Your task to perform on an android device: turn off notifications settings in the gmail app Image 0: 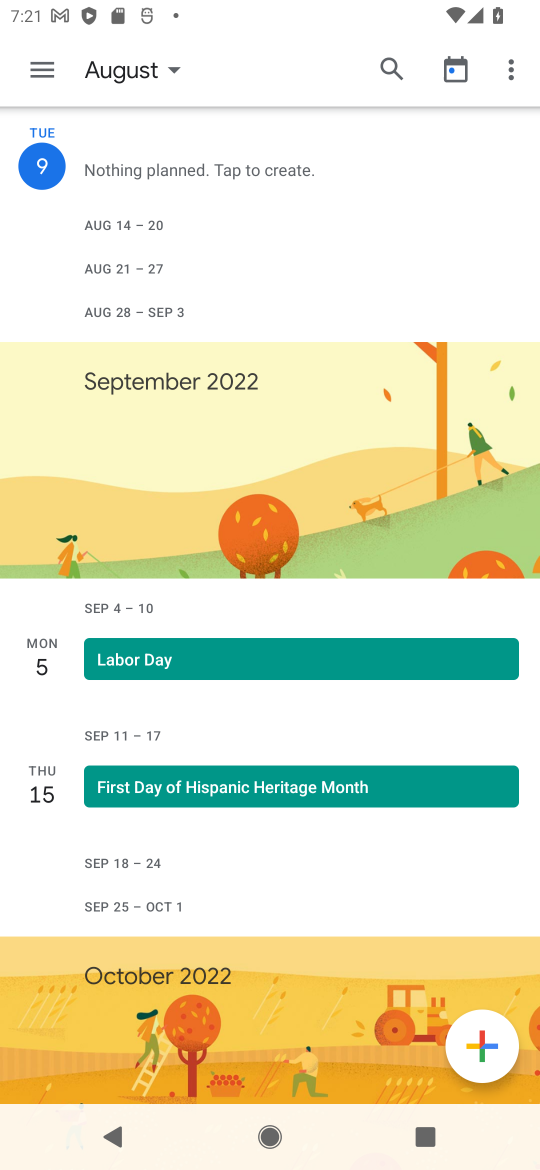
Step 0: press home button
Your task to perform on an android device: turn off notifications settings in the gmail app Image 1: 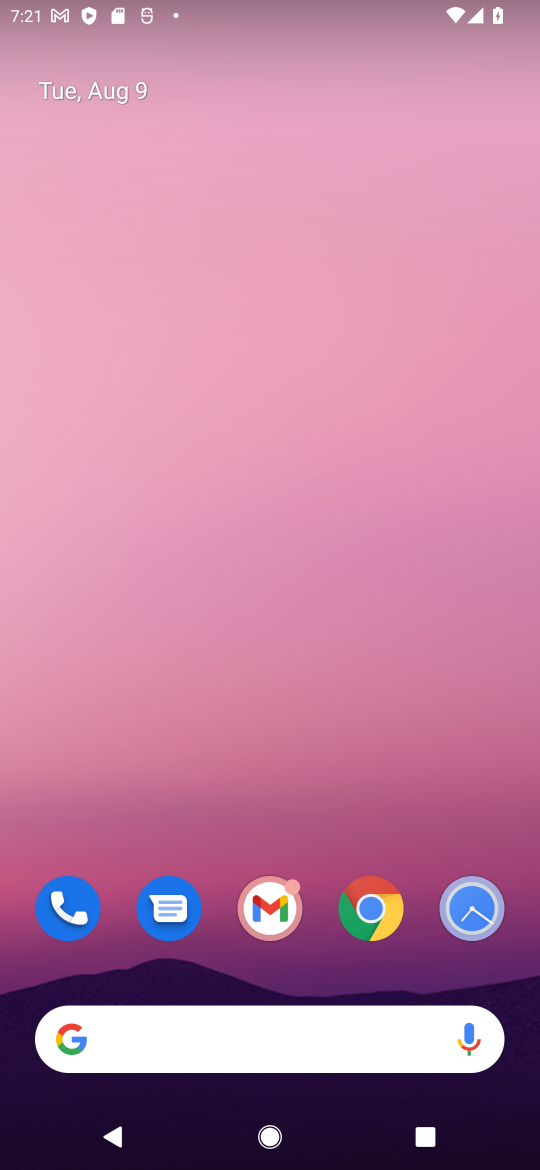
Step 1: drag from (303, 929) to (303, 154)
Your task to perform on an android device: turn off notifications settings in the gmail app Image 2: 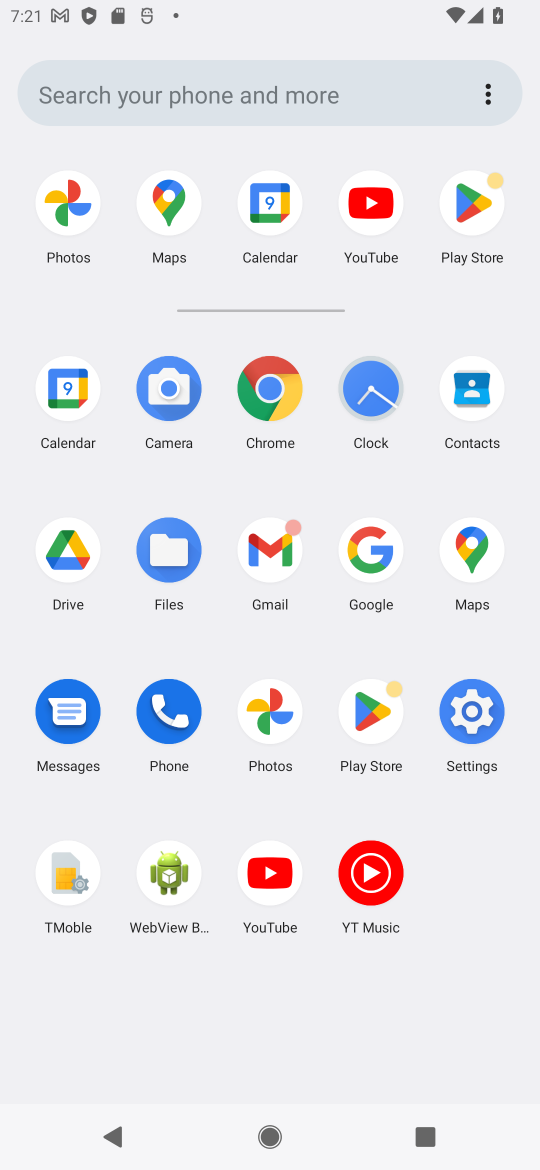
Step 2: click (269, 546)
Your task to perform on an android device: turn off notifications settings in the gmail app Image 3: 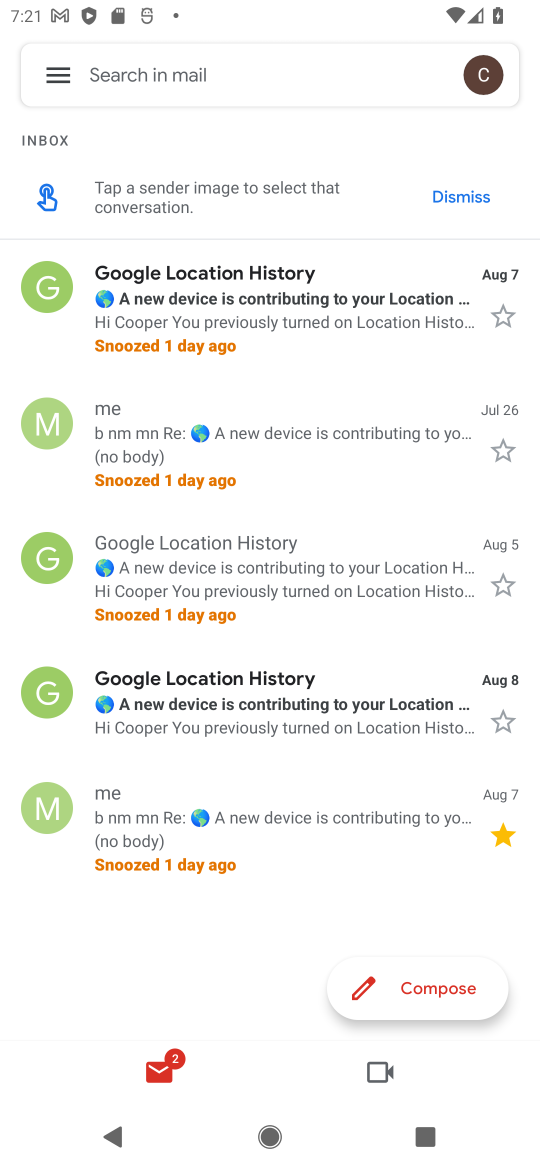
Step 3: click (55, 74)
Your task to perform on an android device: turn off notifications settings in the gmail app Image 4: 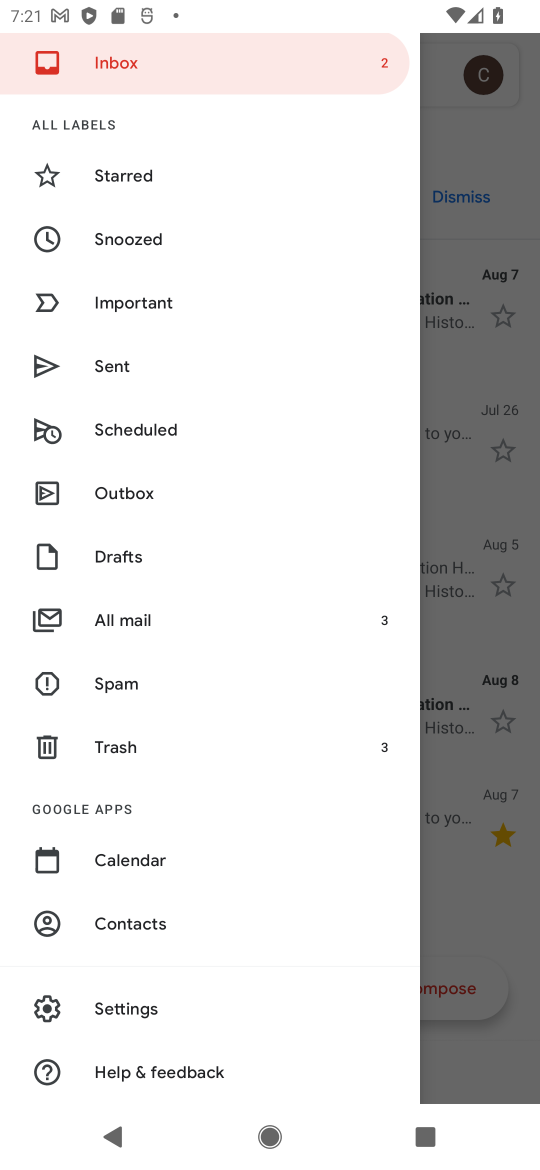
Step 4: click (109, 996)
Your task to perform on an android device: turn off notifications settings in the gmail app Image 5: 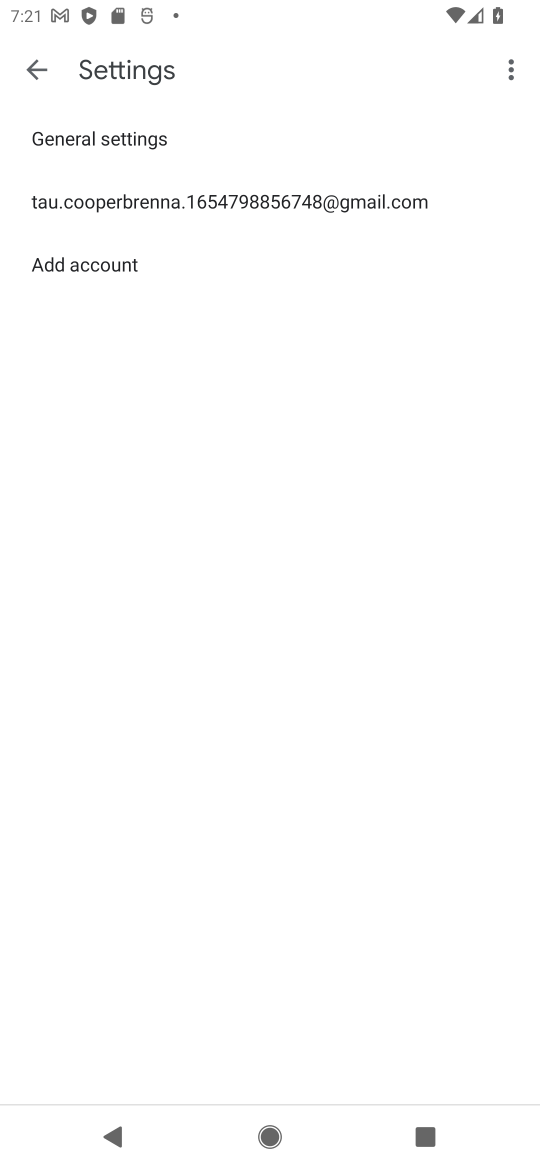
Step 5: click (306, 196)
Your task to perform on an android device: turn off notifications settings in the gmail app Image 6: 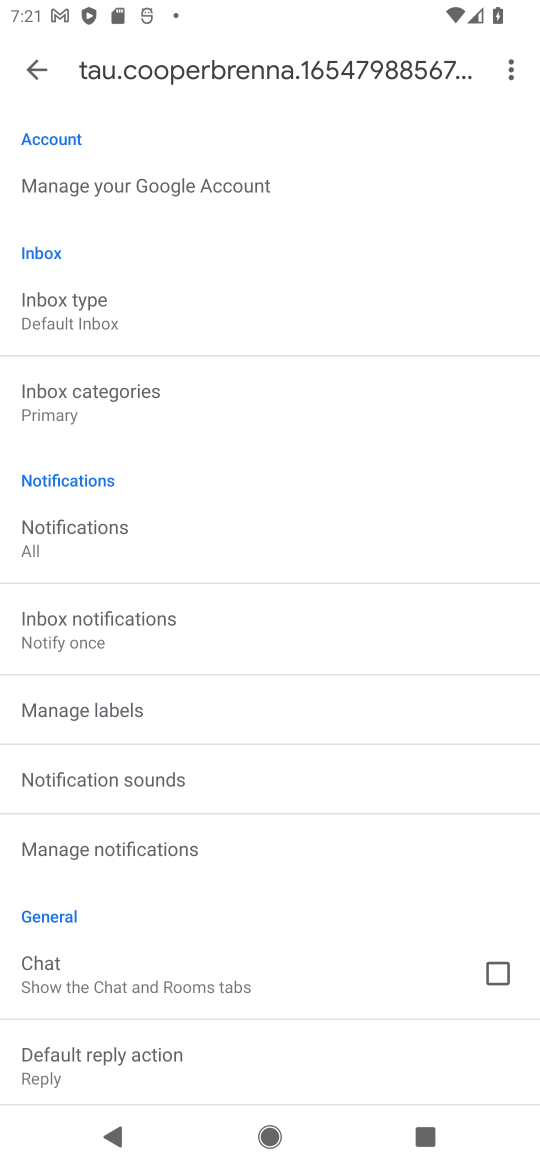
Step 6: click (58, 523)
Your task to perform on an android device: turn off notifications settings in the gmail app Image 7: 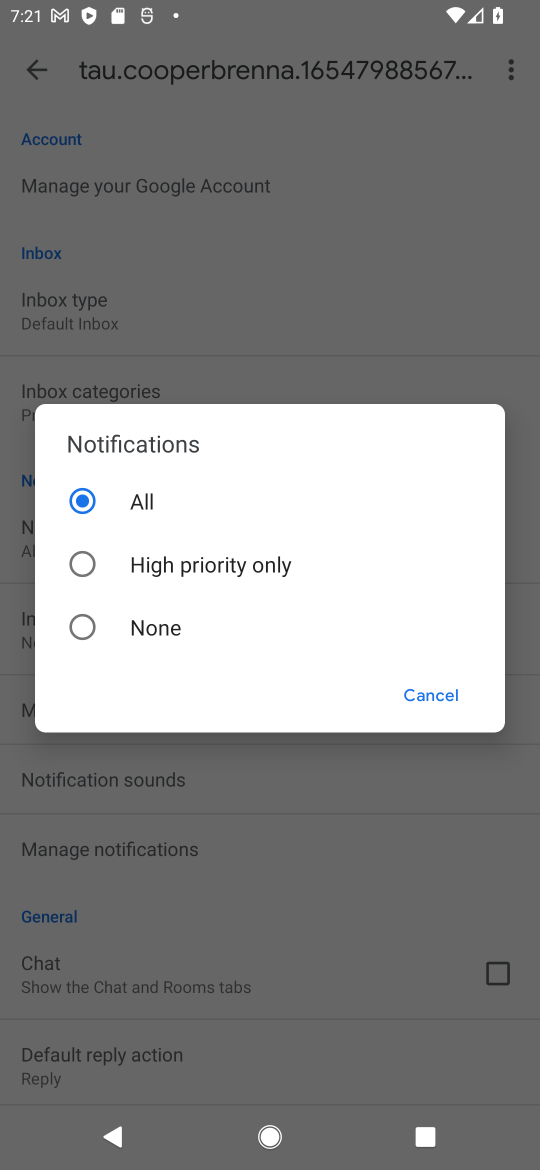
Step 7: click (81, 632)
Your task to perform on an android device: turn off notifications settings in the gmail app Image 8: 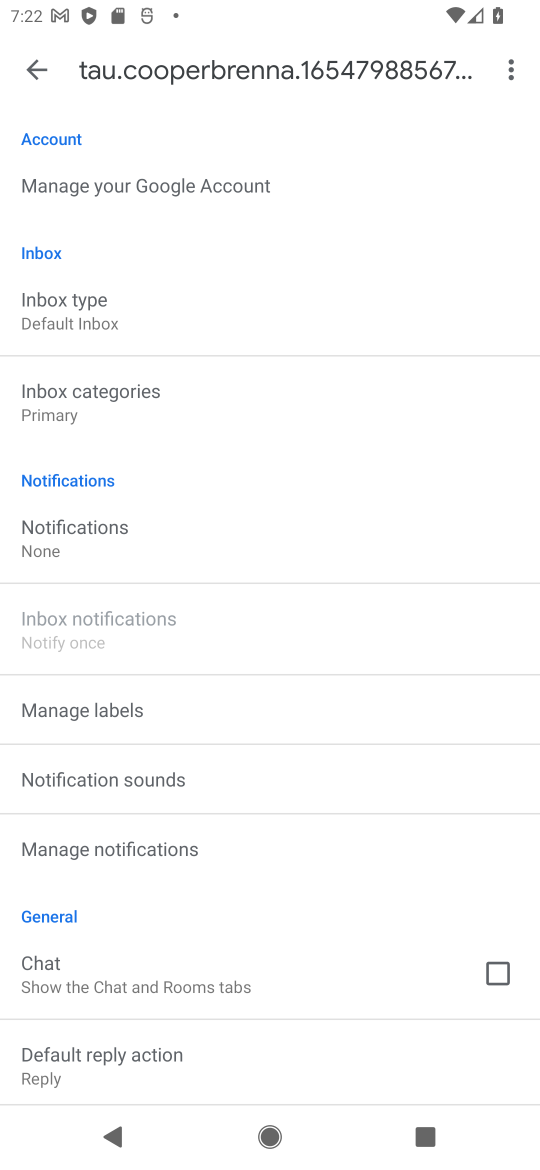
Step 8: task complete